Your task to perform on an android device: Open Chrome and go to the settings page Image 0: 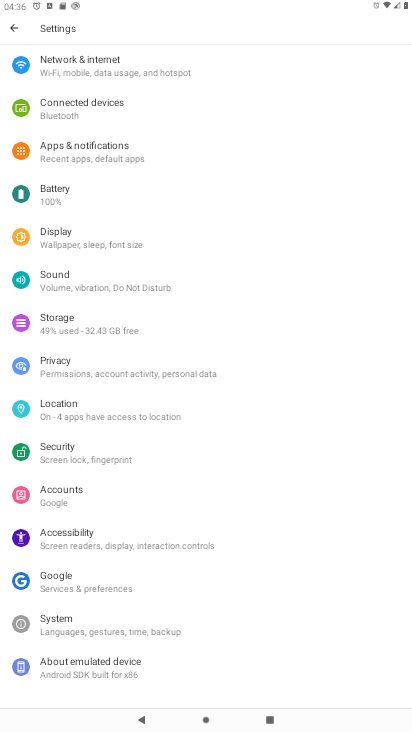
Step 0: press home button
Your task to perform on an android device: Open Chrome and go to the settings page Image 1: 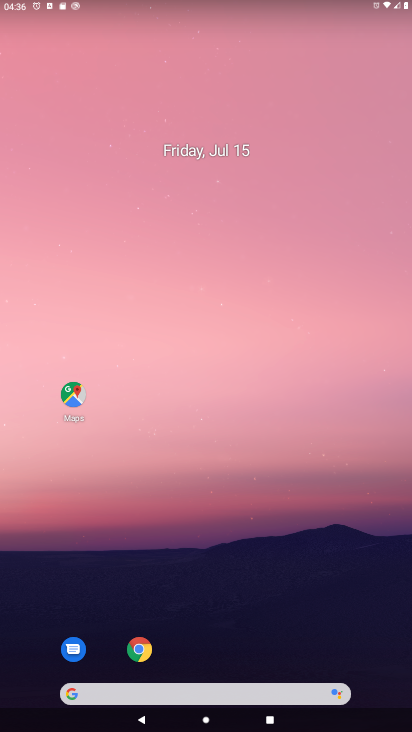
Step 1: click (139, 655)
Your task to perform on an android device: Open Chrome and go to the settings page Image 2: 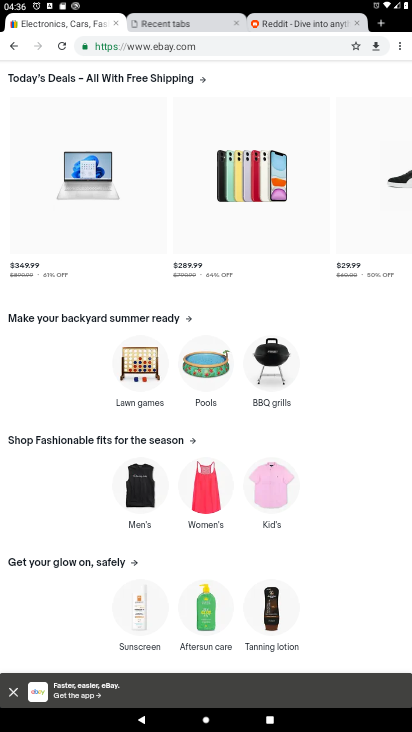
Step 2: drag from (372, 79) to (359, 234)
Your task to perform on an android device: Open Chrome and go to the settings page Image 3: 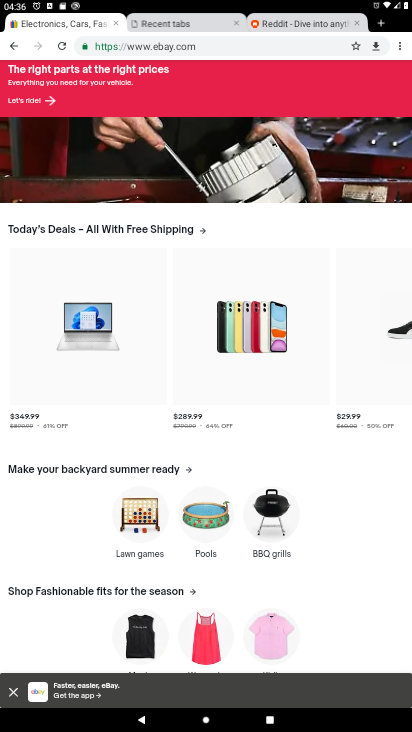
Step 3: click (400, 49)
Your task to perform on an android device: Open Chrome and go to the settings page Image 4: 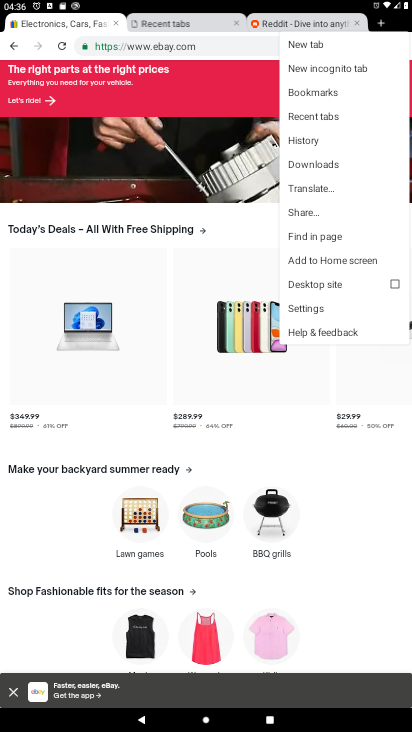
Step 4: click (314, 311)
Your task to perform on an android device: Open Chrome and go to the settings page Image 5: 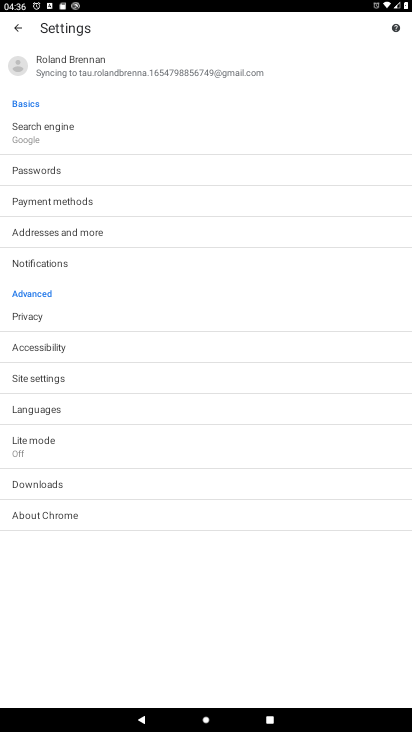
Step 5: task complete